Your task to perform on an android device: Show me popular videos on Youtube Image 0: 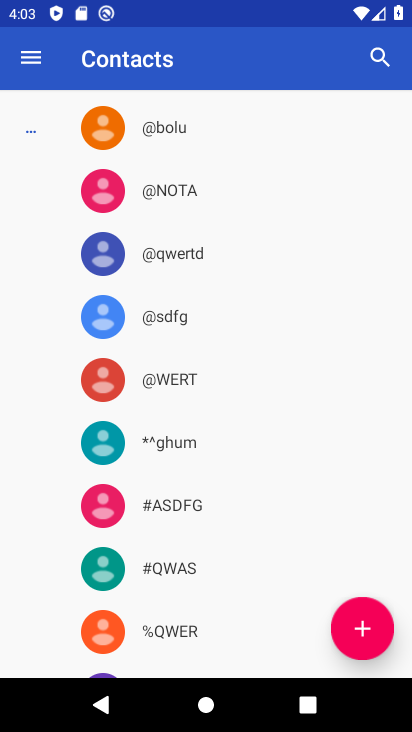
Step 0: press home button
Your task to perform on an android device: Show me popular videos on Youtube Image 1: 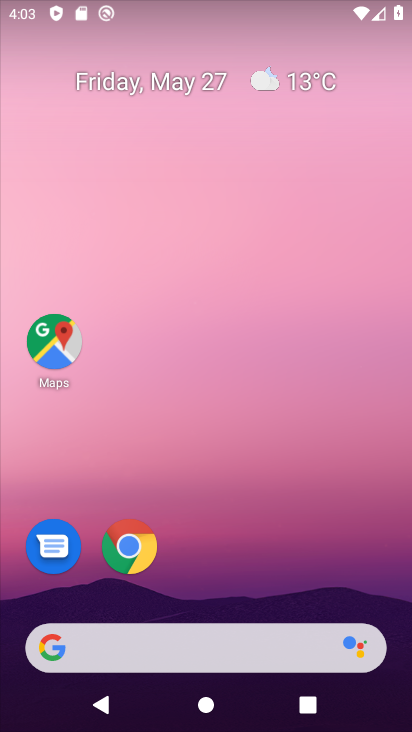
Step 1: drag from (245, 610) to (359, 140)
Your task to perform on an android device: Show me popular videos on Youtube Image 2: 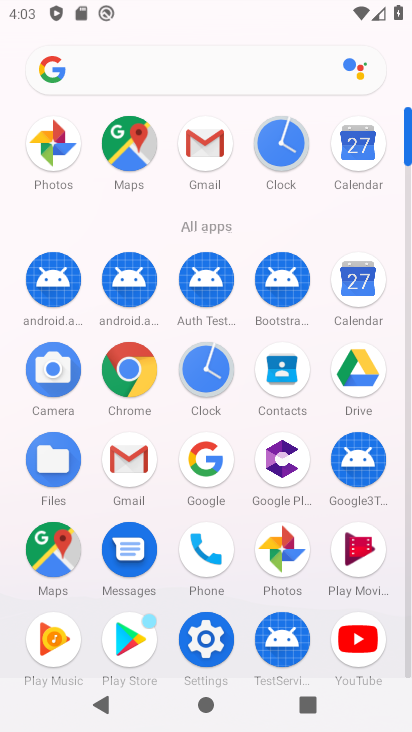
Step 2: drag from (236, 588) to (312, 281)
Your task to perform on an android device: Show me popular videos on Youtube Image 3: 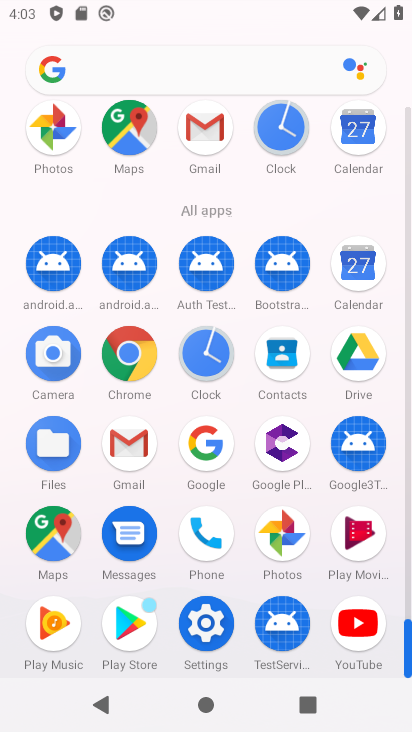
Step 3: click (365, 628)
Your task to perform on an android device: Show me popular videos on Youtube Image 4: 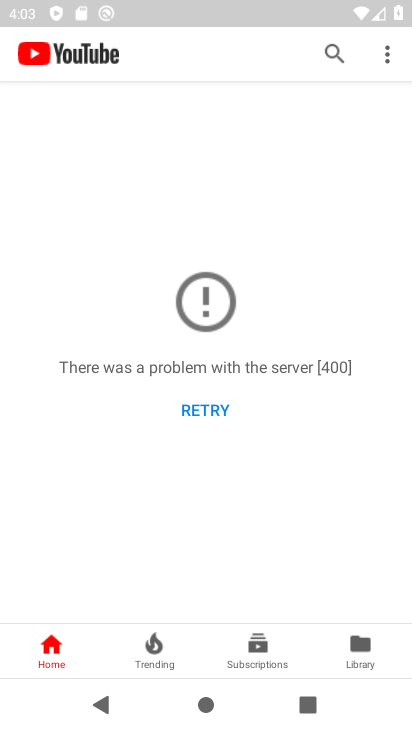
Step 4: click (377, 668)
Your task to perform on an android device: Show me popular videos on Youtube Image 5: 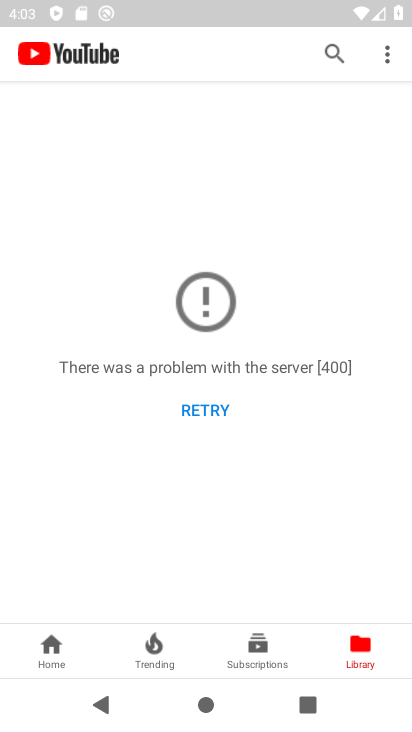
Step 5: task complete